Your task to perform on an android device: Search for pizza restaurants on Maps Image 0: 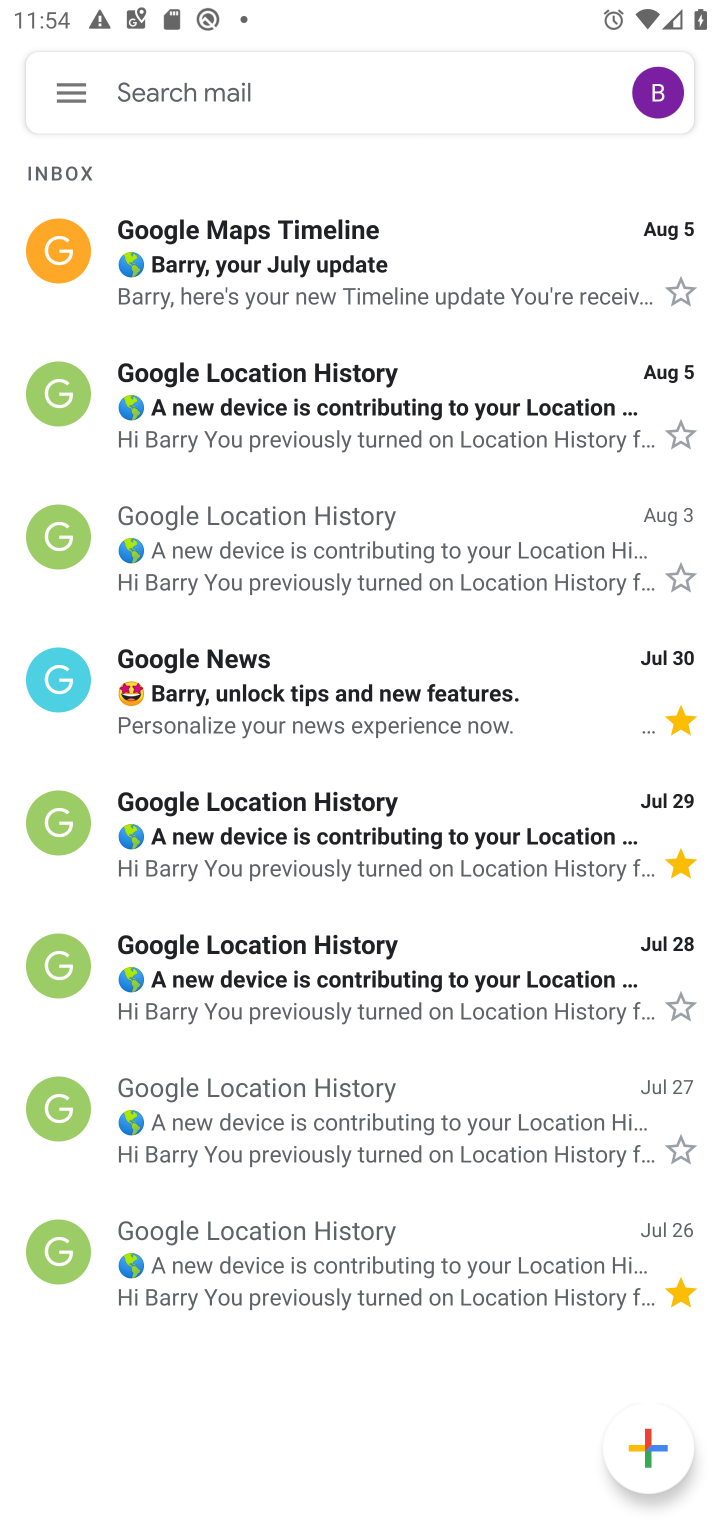
Step 0: press home button
Your task to perform on an android device: Search for pizza restaurants on Maps Image 1: 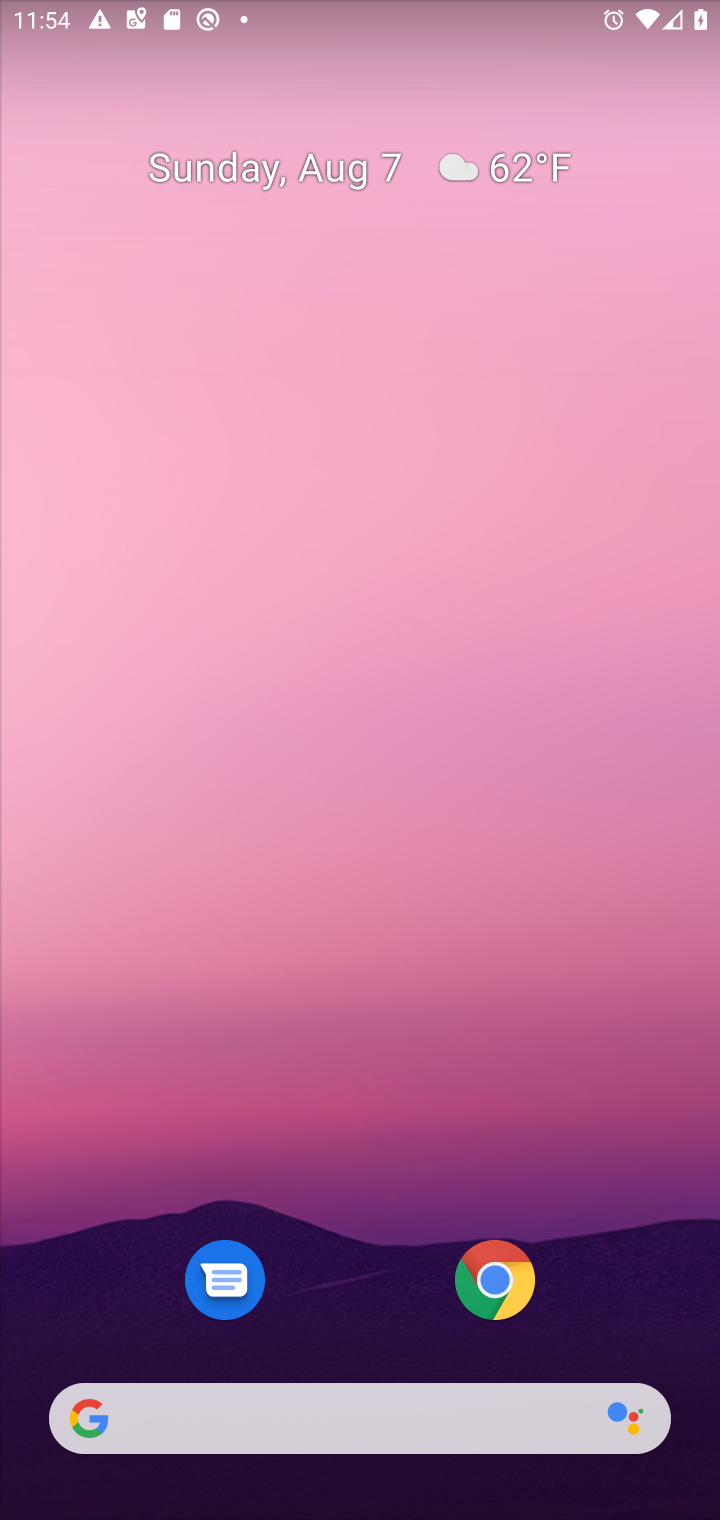
Step 1: drag from (358, 1311) to (358, 147)
Your task to perform on an android device: Search for pizza restaurants on Maps Image 2: 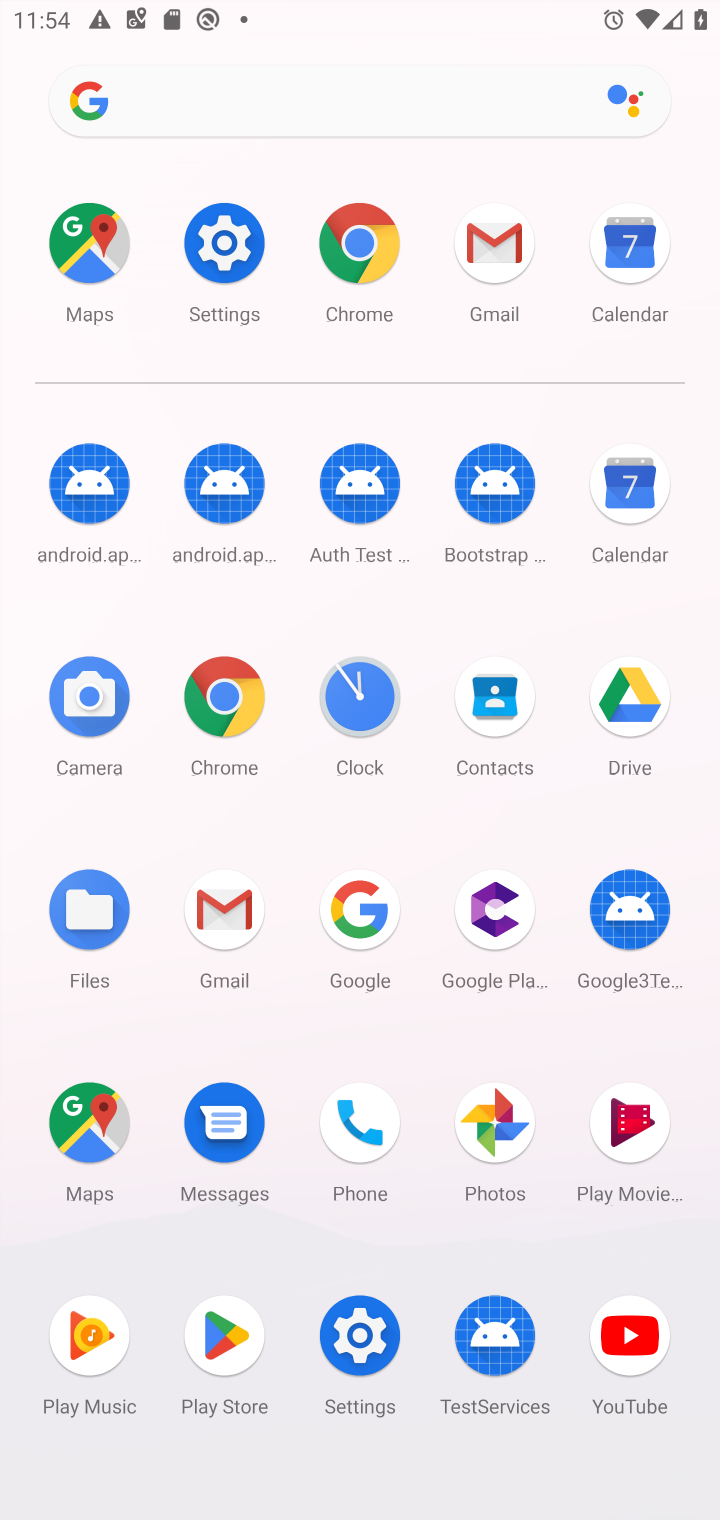
Step 2: click (73, 1127)
Your task to perform on an android device: Search for pizza restaurants on Maps Image 3: 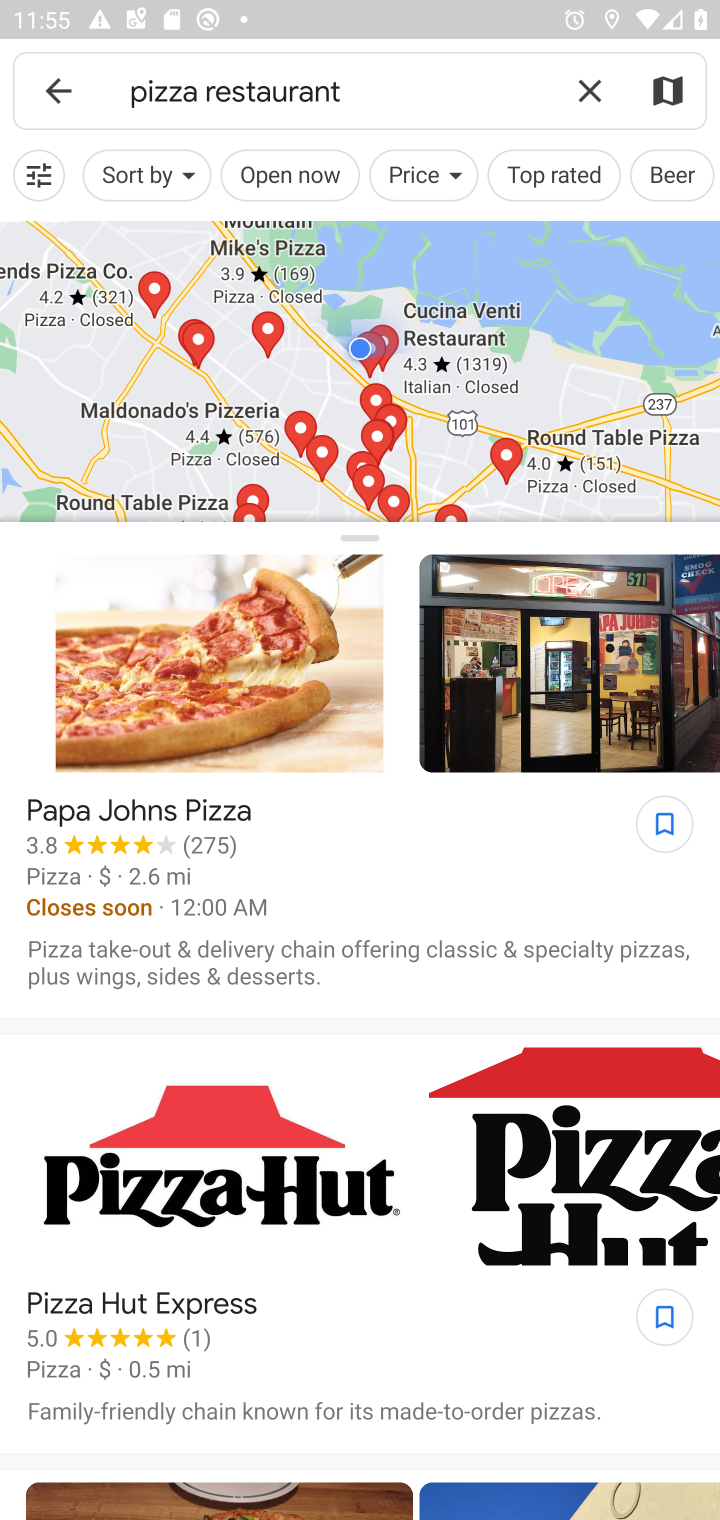
Step 3: task complete